Your task to perform on an android device: What's the weather going to be tomorrow? Image 0: 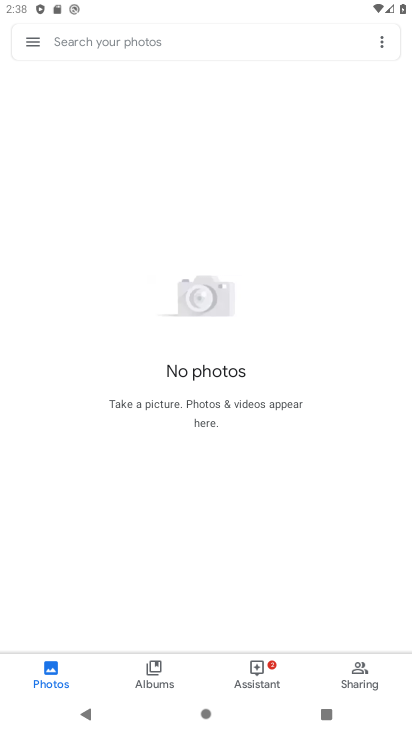
Step 0: click (234, 520)
Your task to perform on an android device: What's the weather going to be tomorrow? Image 1: 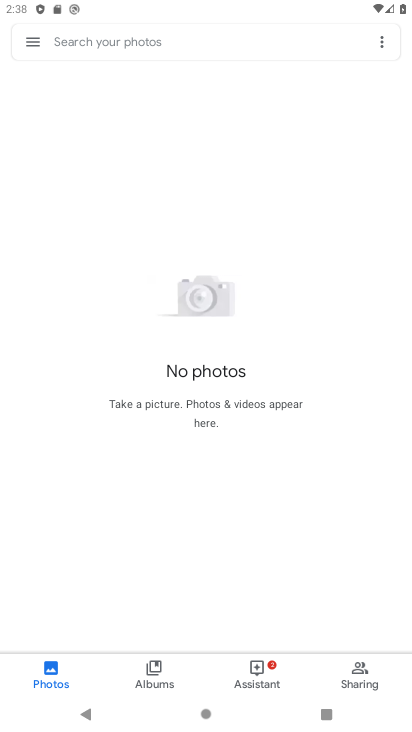
Step 1: drag from (134, 730) to (241, 520)
Your task to perform on an android device: What's the weather going to be tomorrow? Image 2: 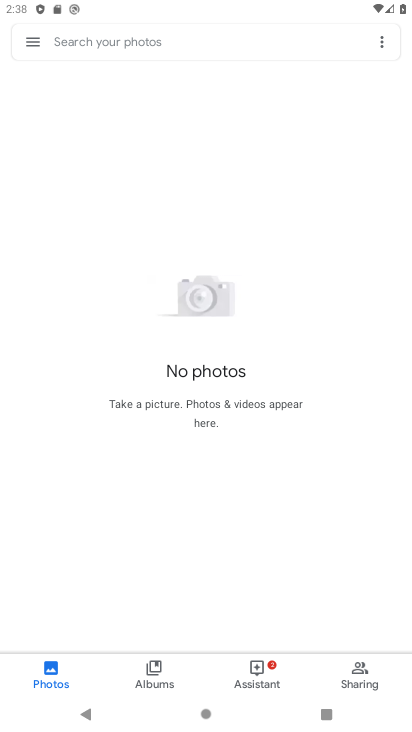
Step 2: press home button
Your task to perform on an android device: What's the weather going to be tomorrow? Image 3: 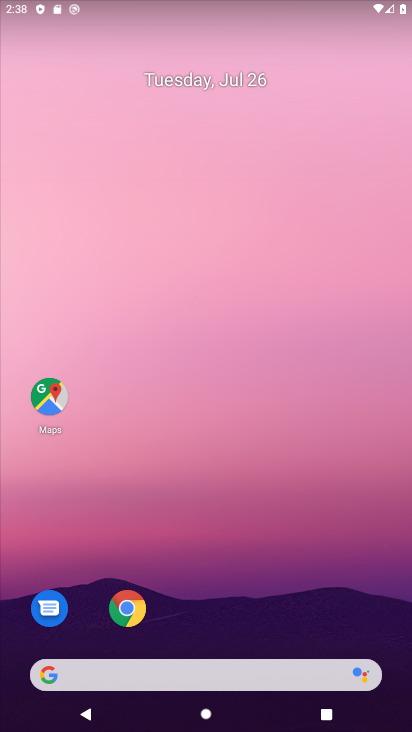
Step 3: click (171, 680)
Your task to perform on an android device: What's the weather going to be tomorrow? Image 4: 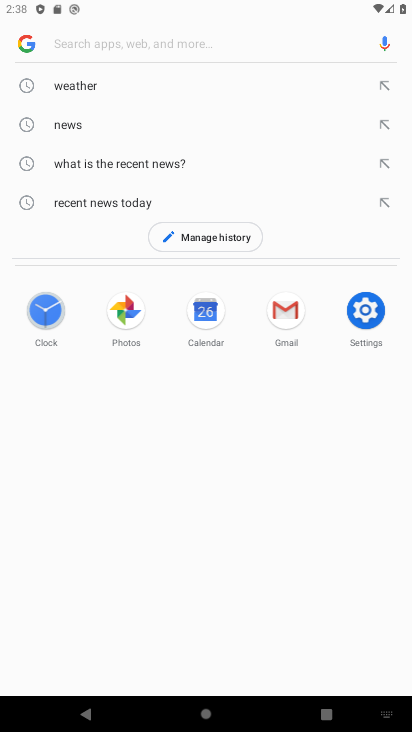
Step 4: type "What's the weather going to be tomorrow?"
Your task to perform on an android device: What's the weather going to be tomorrow? Image 5: 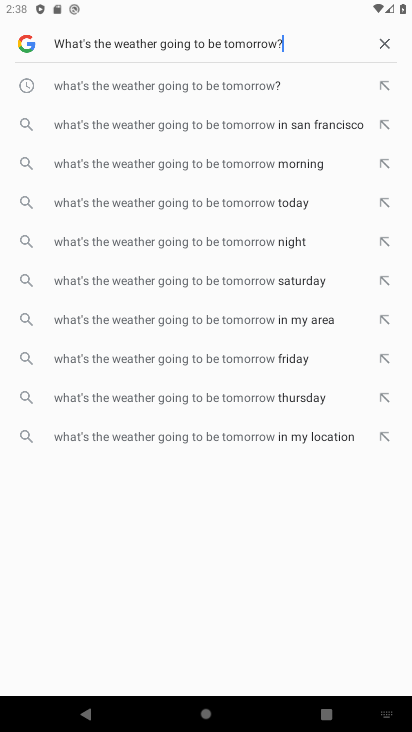
Step 5: press enter
Your task to perform on an android device: What's the weather going to be tomorrow? Image 6: 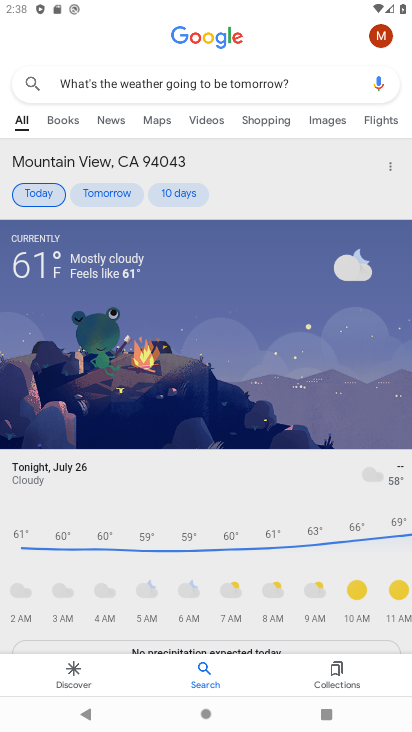
Step 6: task complete